Your task to perform on an android device: View the shopping cart on target. Search for "macbook pro 13 inch" on target, select the first entry, and add it to the cart. Image 0: 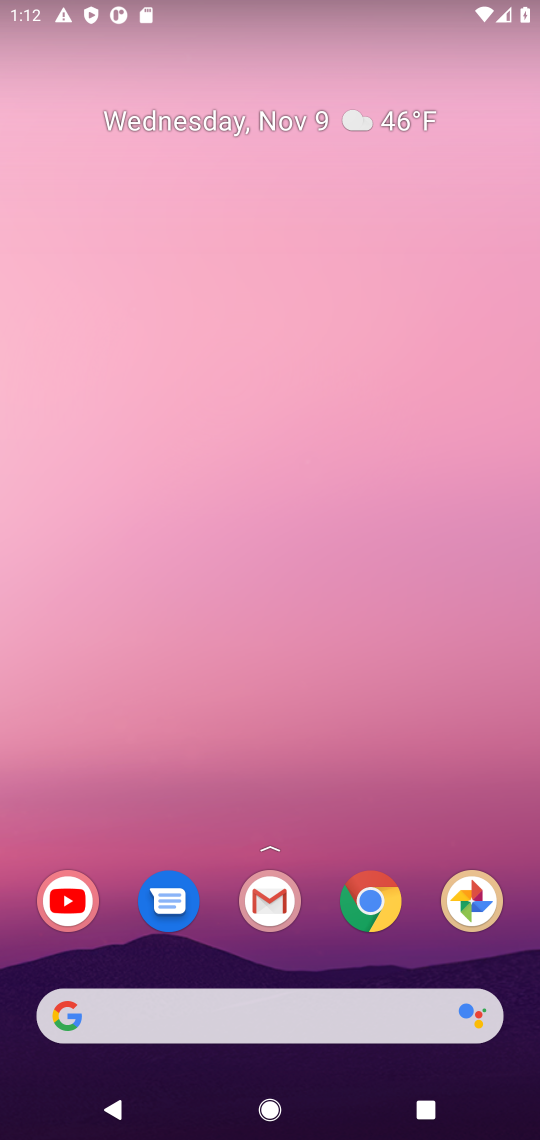
Step 0: click (375, 906)
Your task to perform on an android device: View the shopping cart on target. Search for "macbook pro 13 inch" on target, select the first entry, and add it to the cart. Image 1: 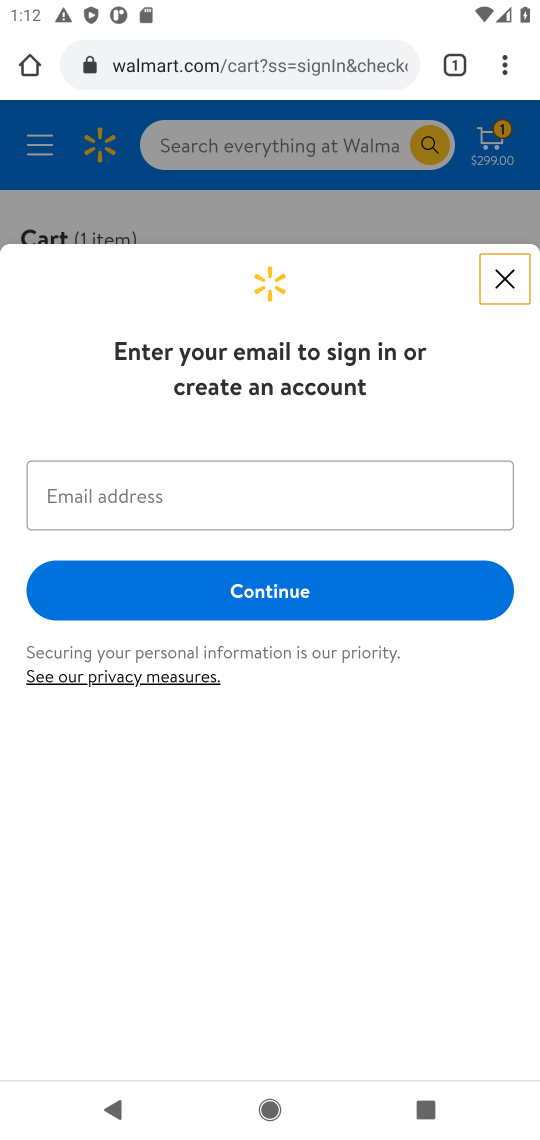
Step 1: click (304, 66)
Your task to perform on an android device: View the shopping cart on target. Search for "macbook pro 13 inch" on target, select the first entry, and add it to the cart. Image 2: 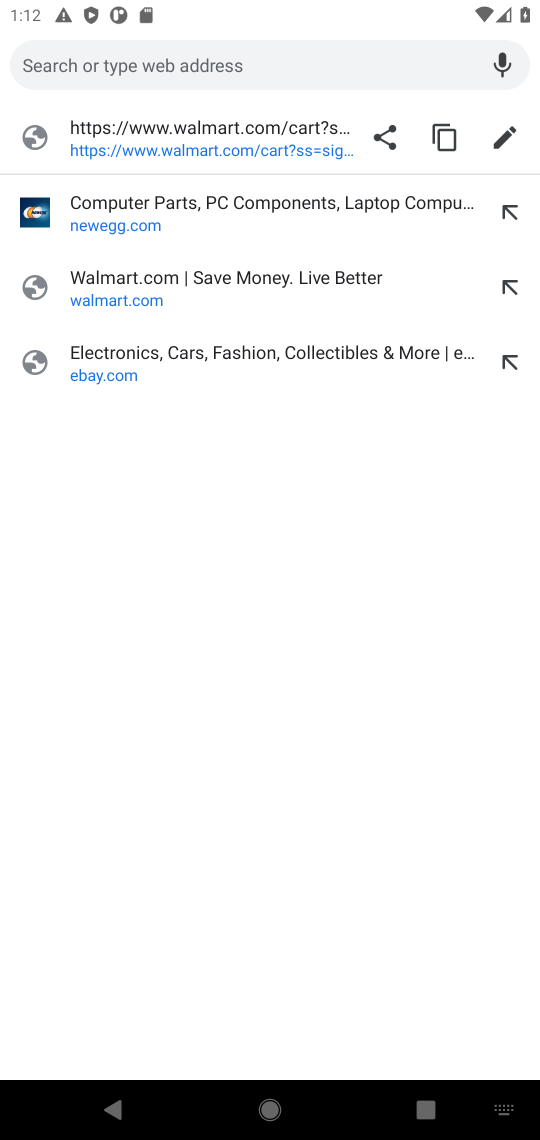
Step 2: type "target"
Your task to perform on an android device: View the shopping cart on target. Search for "macbook pro 13 inch" on target, select the first entry, and add it to the cart. Image 3: 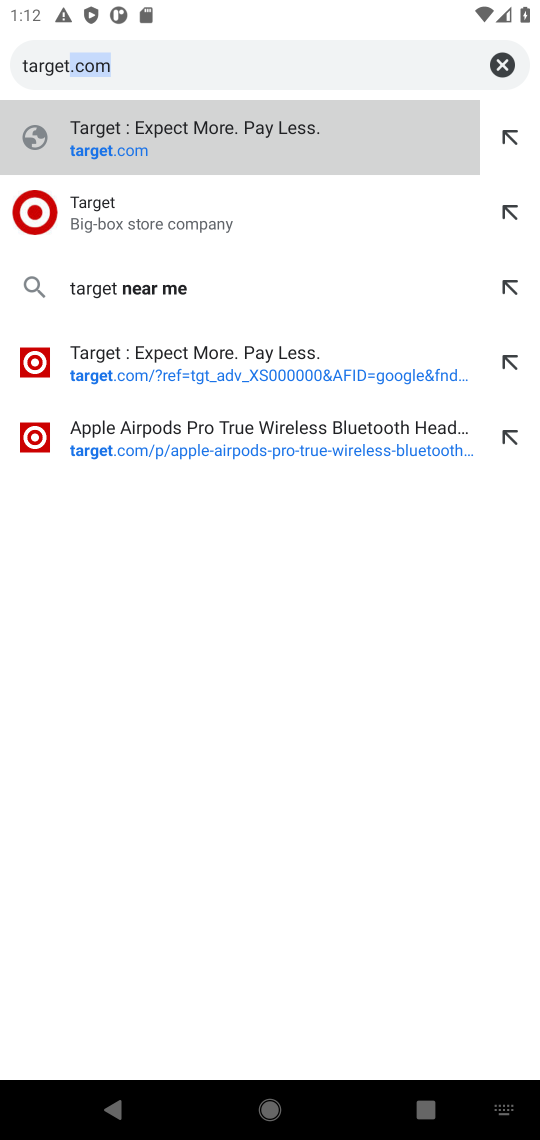
Step 3: press enter
Your task to perform on an android device: View the shopping cart on target. Search for "macbook pro 13 inch" on target, select the first entry, and add it to the cart. Image 4: 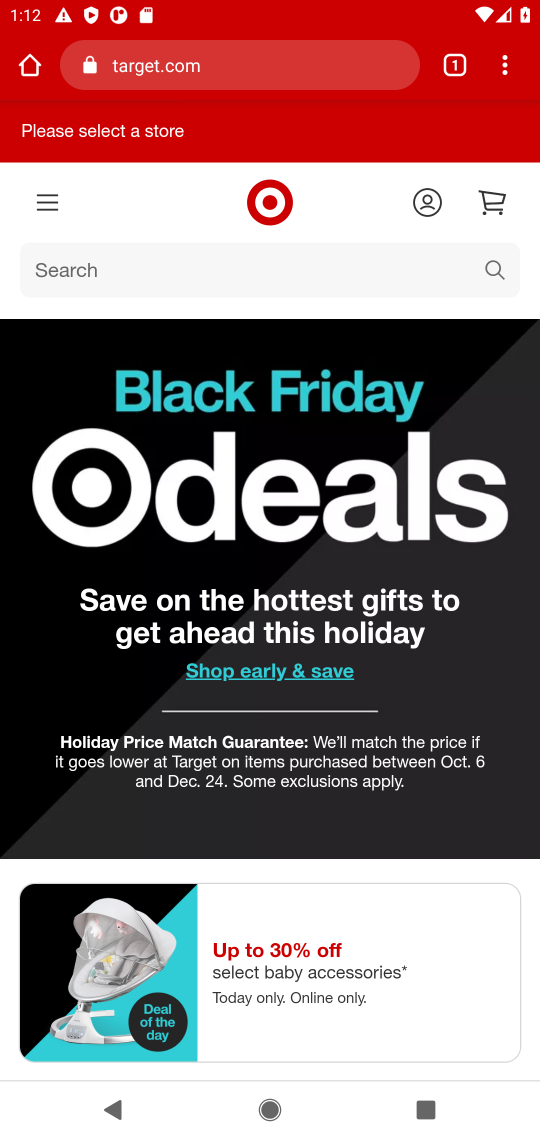
Step 4: click (493, 268)
Your task to perform on an android device: View the shopping cart on target. Search for "macbook pro 13 inch" on target, select the first entry, and add it to the cart. Image 5: 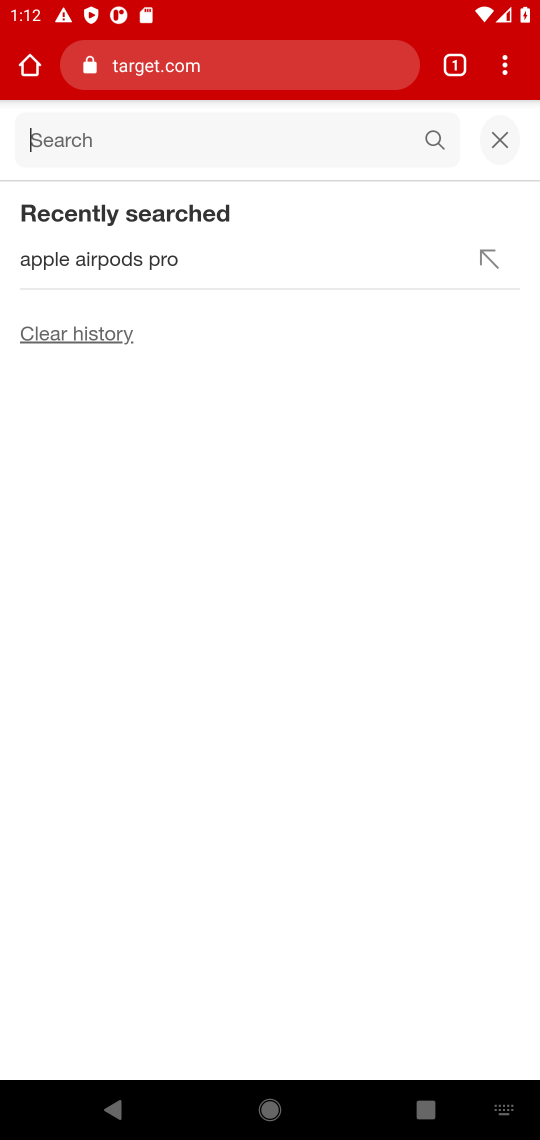
Step 5: type "macbook pro 13 inch"
Your task to perform on an android device: View the shopping cart on target. Search for "macbook pro 13 inch" on target, select the first entry, and add it to the cart. Image 6: 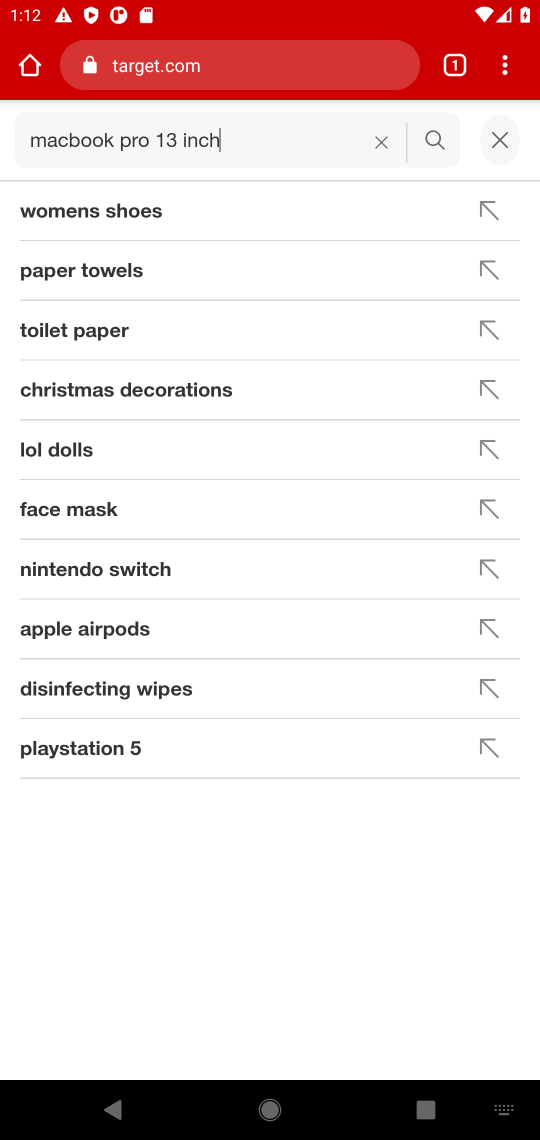
Step 6: press enter
Your task to perform on an android device: View the shopping cart on target. Search for "macbook pro 13 inch" on target, select the first entry, and add it to the cart. Image 7: 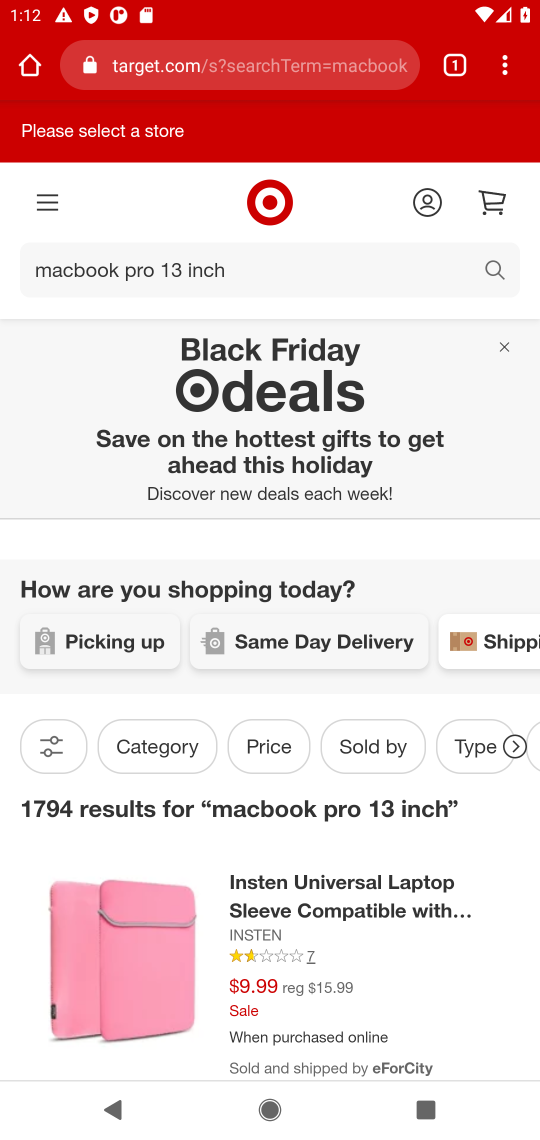
Step 7: task complete